Your task to perform on an android device: check out phone information Image 0: 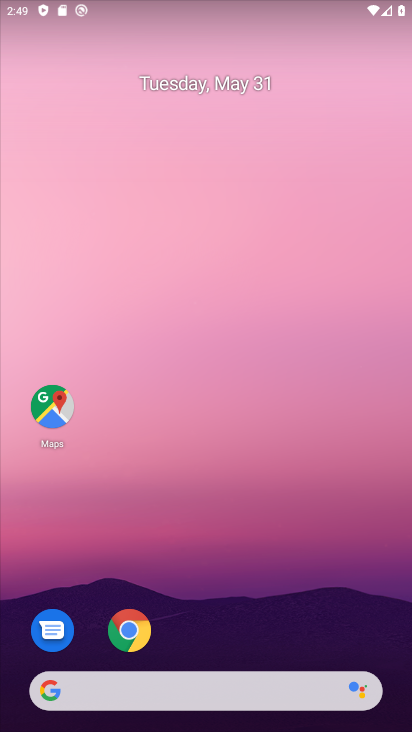
Step 0: drag from (312, 277) to (346, 201)
Your task to perform on an android device: check out phone information Image 1: 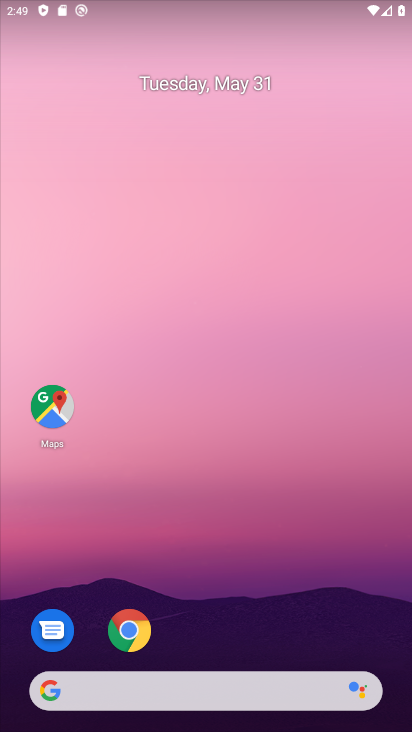
Step 1: drag from (210, 682) to (410, 150)
Your task to perform on an android device: check out phone information Image 2: 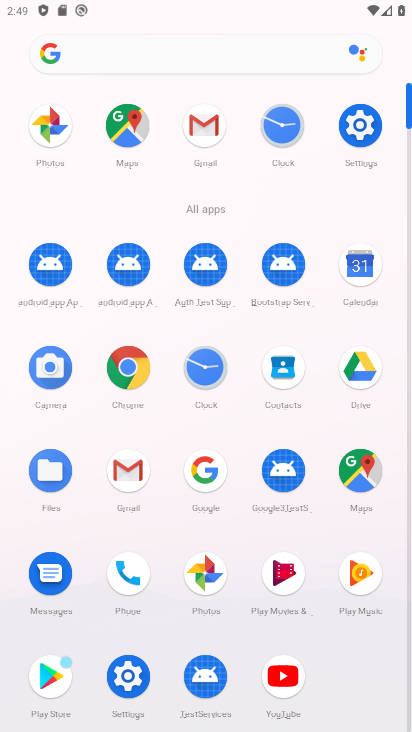
Step 2: click (352, 128)
Your task to perform on an android device: check out phone information Image 3: 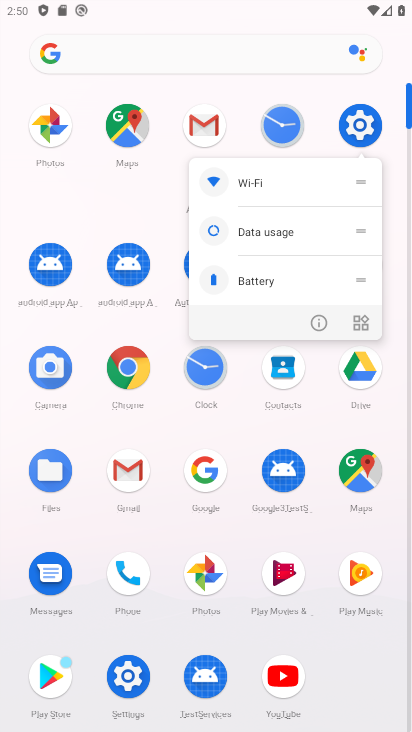
Step 3: click (352, 128)
Your task to perform on an android device: check out phone information Image 4: 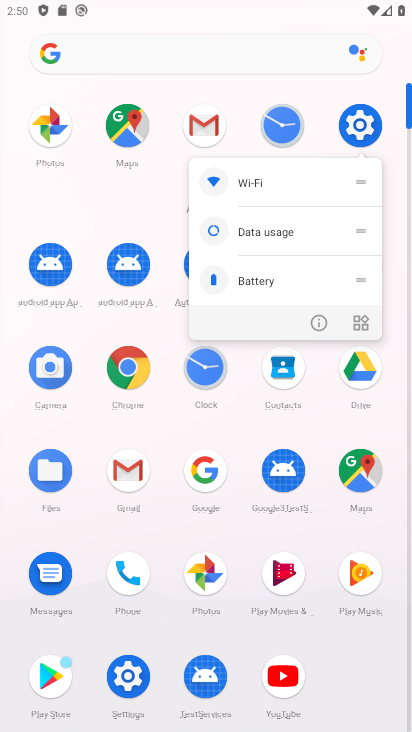
Step 4: click (352, 128)
Your task to perform on an android device: check out phone information Image 5: 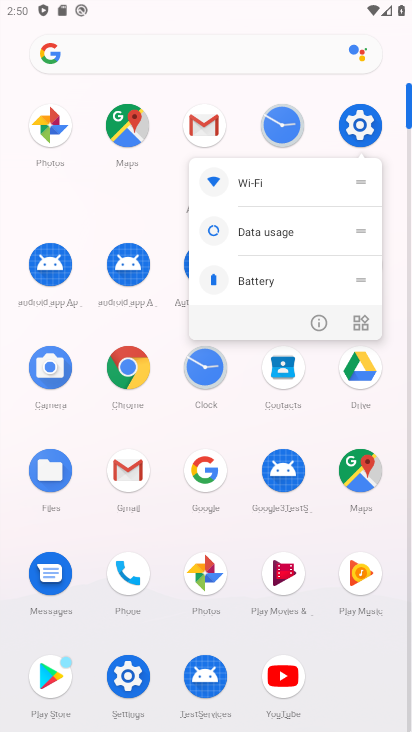
Step 5: click (352, 128)
Your task to perform on an android device: check out phone information Image 6: 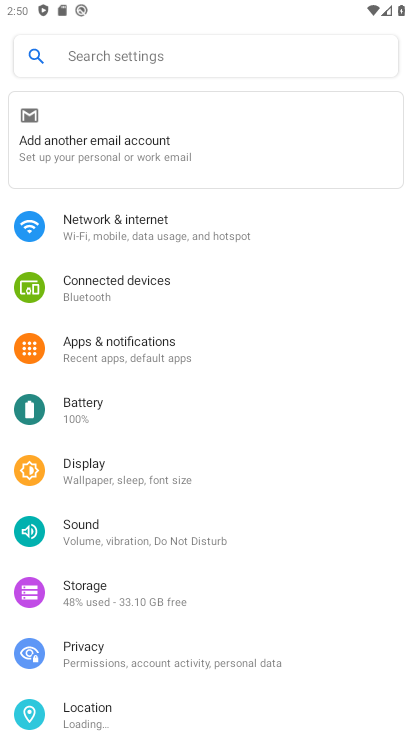
Step 6: drag from (127, 613) to (366, 19)
Your task to perform on an android device: check out phone information Image 7: 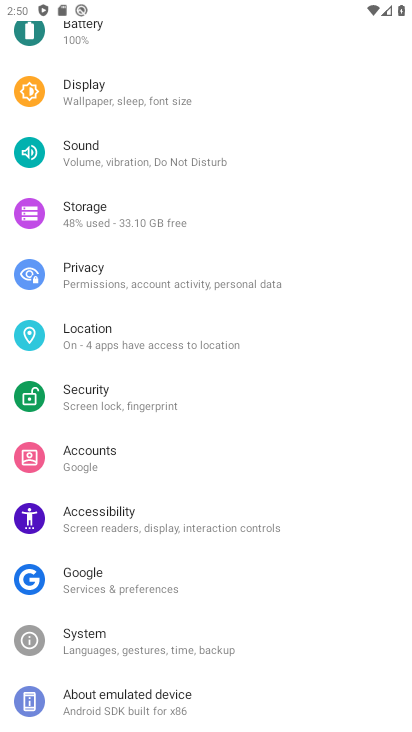
Step 7: click (139, 648)
Your task to perform on an android device: check out phone information Image 8: 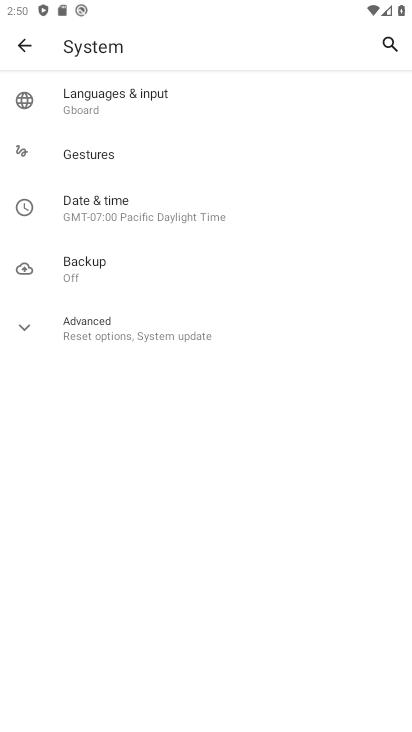
Step 8: task complete